Your task to perform on an android device: Add "logitech g502" to the cart on ebay, then select checkout. Image 0: 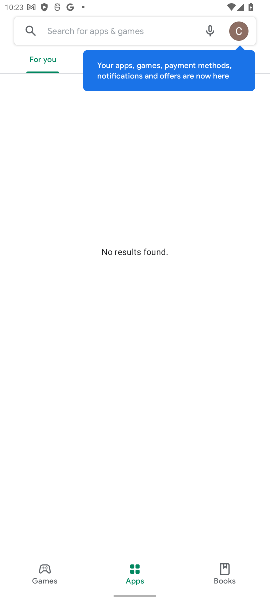
Step 0: press home button
Your task to perform on an android device: Add "logitech g502" to the cart on ebay, then select checkout. Image 1: 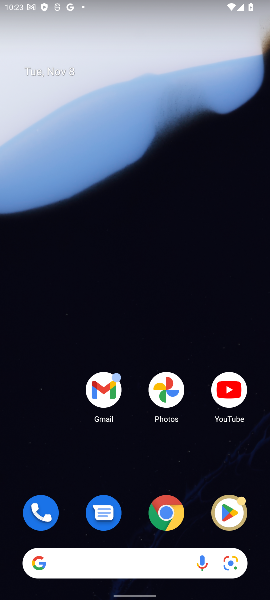
Step 1: click (168, 518)
Your task to perform on an android device: Add "logitech g502" to the cart on ebay, then select checkout. Image 2: 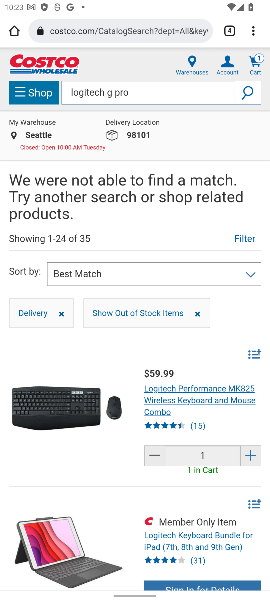
Step 2: click (231, 25)
Your task to perform on an android device: Add "logitech g502" to the cart on ebay, then select checkout. Image 3: 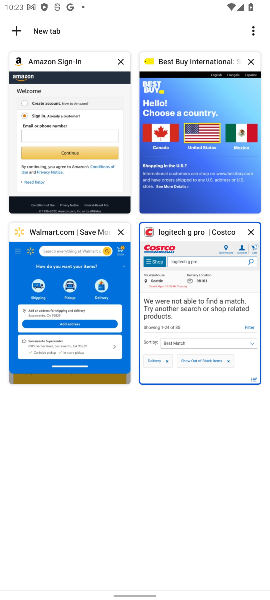
Step 3: click (17, 29)
Your task to perform on an android device: Add "logitech g502" to the cart on ebay, then select checkout. Image 4: 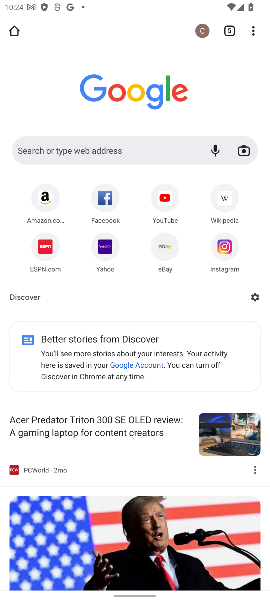
Step 4: click (107, 152)
Your task to perform on an android device: Add "logitech g502" to the cart on ebay, then select checkout. Image 5: 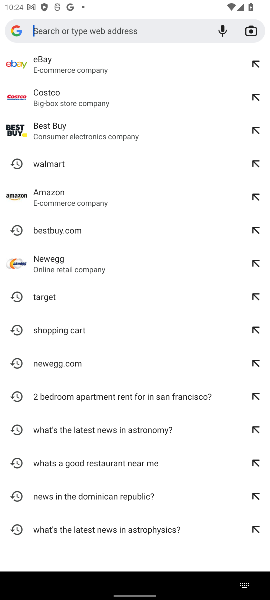
Step 5: click (45, 62)
Your task to perform on an android device: Add "logitech g502" to the cart on ebay, then select checkout. Image 6: 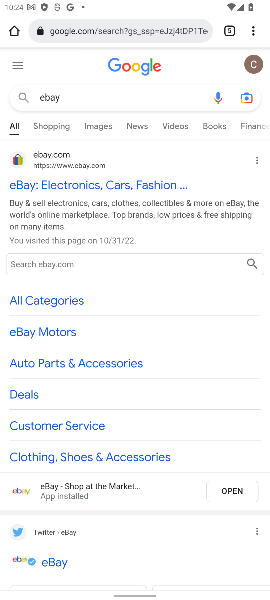
Step 6: click (53, 260)
Your task to perform on an android device: Add "logitech g502" to the cart on ebay, then select checkout. Image 7: 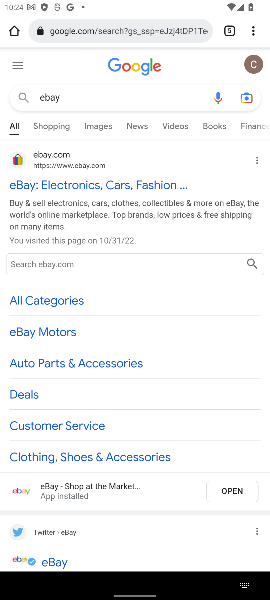
Step 7: type "logitech g502"
Your task to perform on an android device: Add "logitech g502" to the cart on ebay, then select checkout. Image 8: 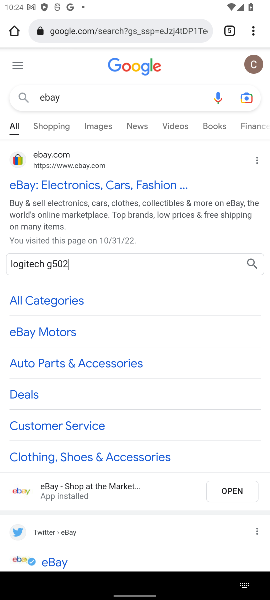
Step 8: click (251, 260)
Your task to perform on an android device: Add "logitech g502" to the cart on ebay, then select checkout. Image 9: 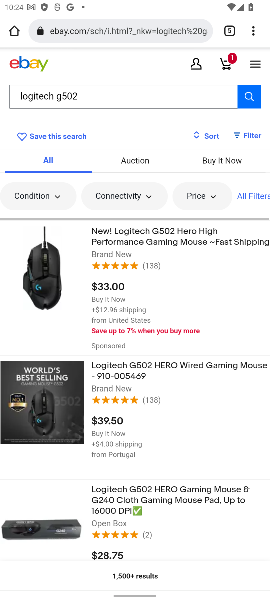
Step 9: click (149, 233)
Your task to perform on an android device: Add "logitech g502" to the cart on ebay, then select checkout. Image 10: 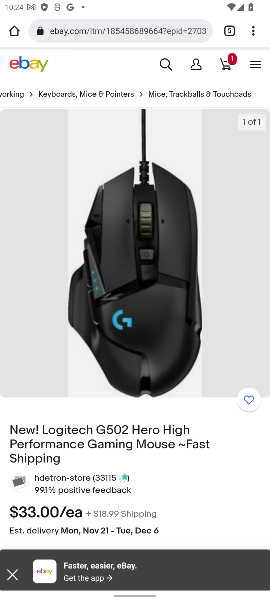
Step 10: drag from (201, 506) to (203, 118)
Your task to perform on an android device: Add "logitech g502" to the cart on ebay, then select checkout. Image 11: 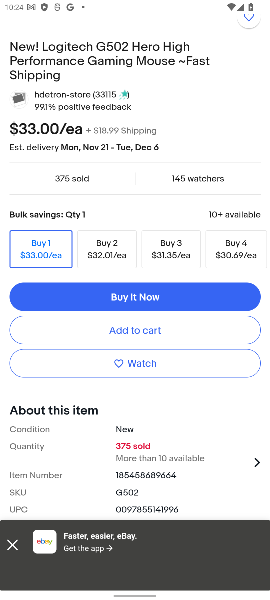
Step 11: click (143, 329)
Your task to perform on an android device: Add "logitech g502" to the cart on ebay, then select checkout. Image 12: 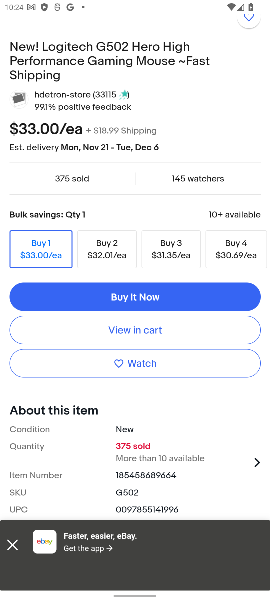
Step 12: click (137, 331)
Your task to perform on an android device: Add "logitech g502" to the cart on ebay, then select checkout. Image 13: 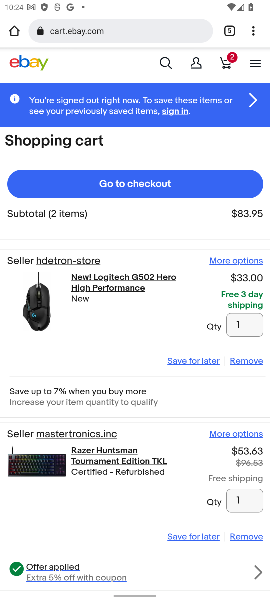
Step 13: click (157, 185)
Your task to perform on an android device: Add "logitech g502" to the cart on ebay, then select checkout. Image 14: 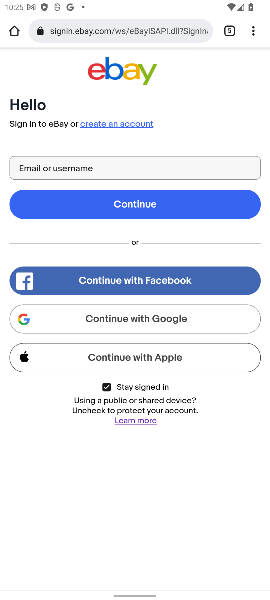
Step 14: task complete